Your task to perform on an android device: check battery use Image 0: 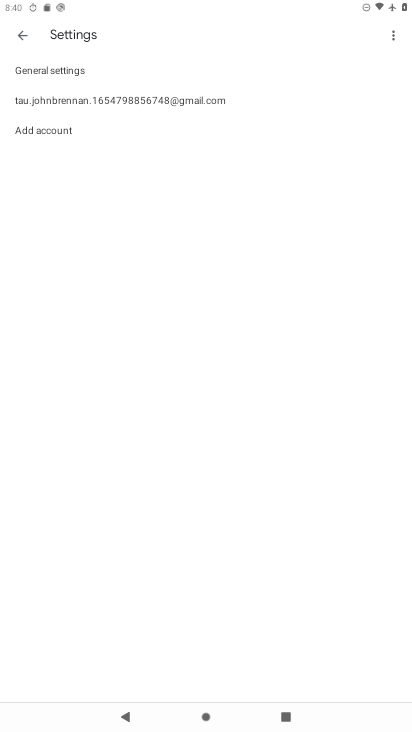
Step 0: press home button
Your task to perform on an android device: check battery use Image 1: 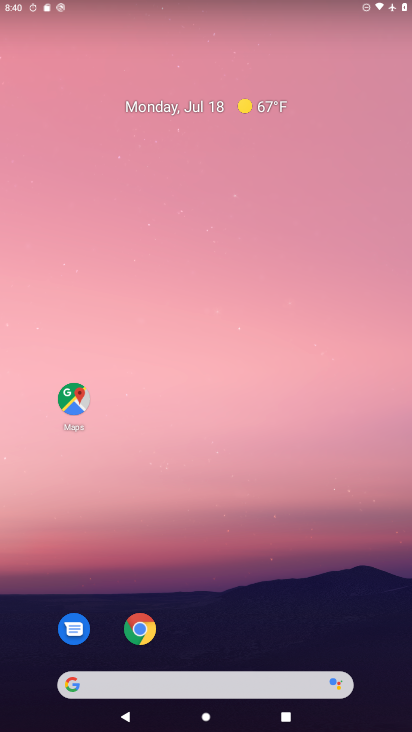
Step 1: drag from (209, 645) to (195, 68)
Your task to perform on an android device: check battery use Image 2: 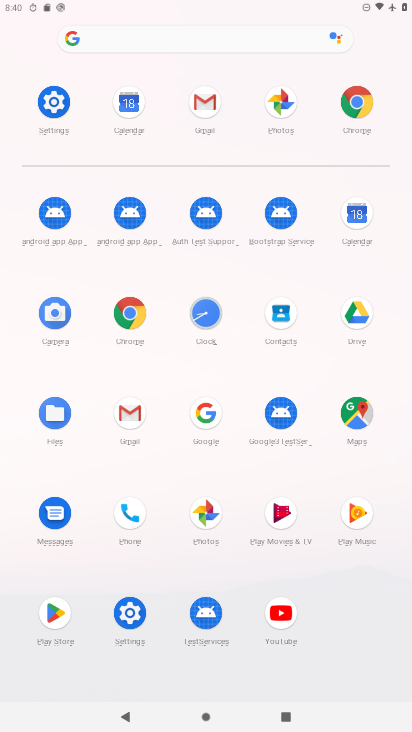
Step 2: click (57, 100)
Your task to perform on an android device: check battery use Image 3: 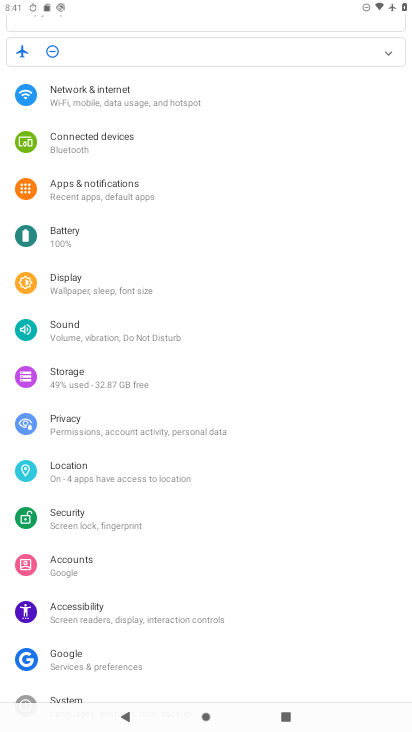
Step 3: drag from (104, 611) to (106, 488)
Your task to perform on an android device: check battery use Image 4: 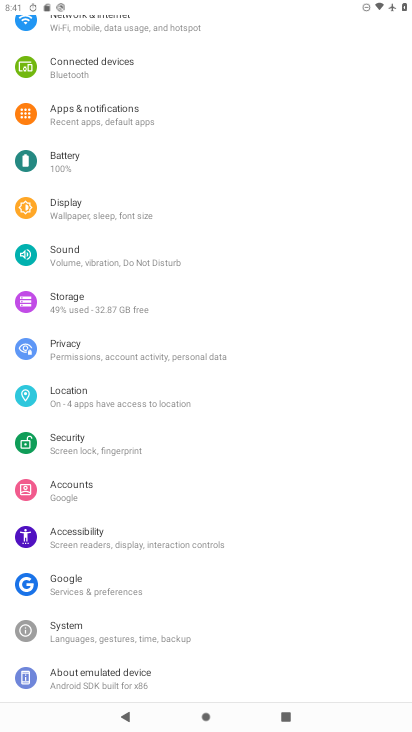
Step 4: click (67, 164)
Your task to perform on an android device: check battery use Image 5: 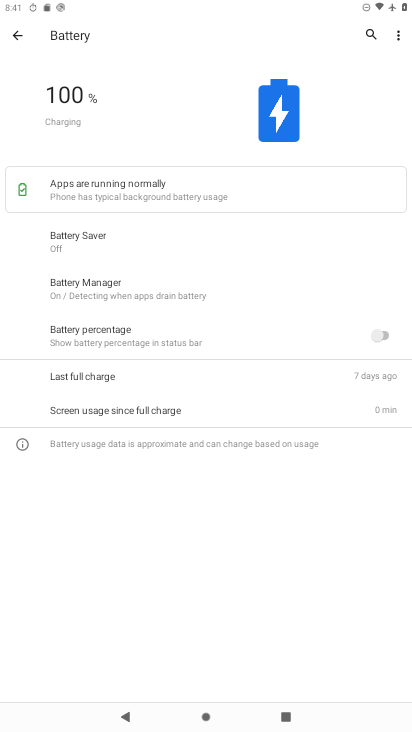
Step 5: task complete